Your task to perform on an android device: clear history in the chrome app Image 0: 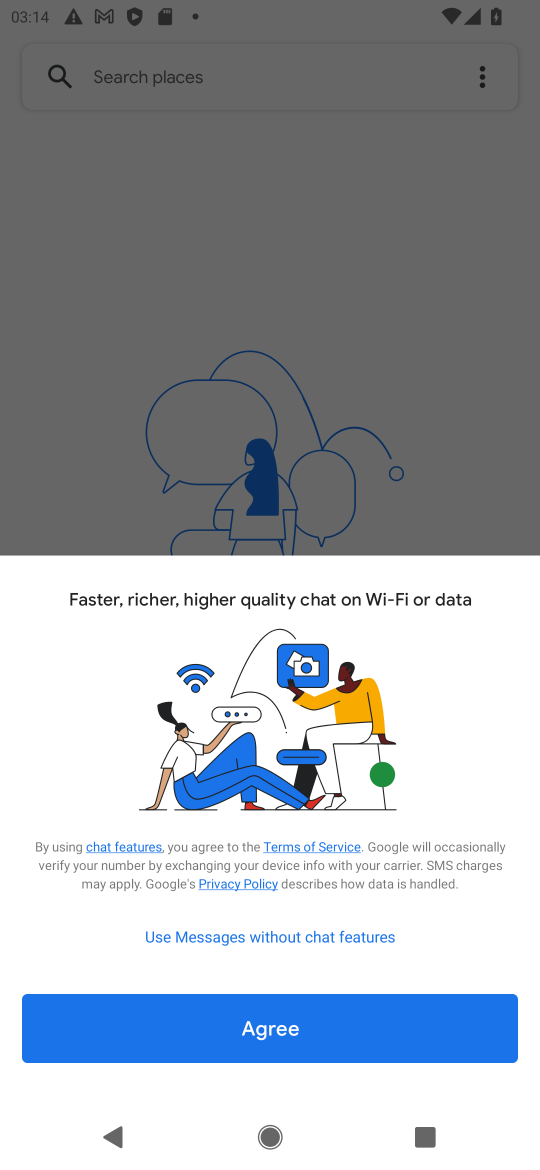
Step 0: press home button
Your task to perform on an android device: clear history in the chrome app Image 1: 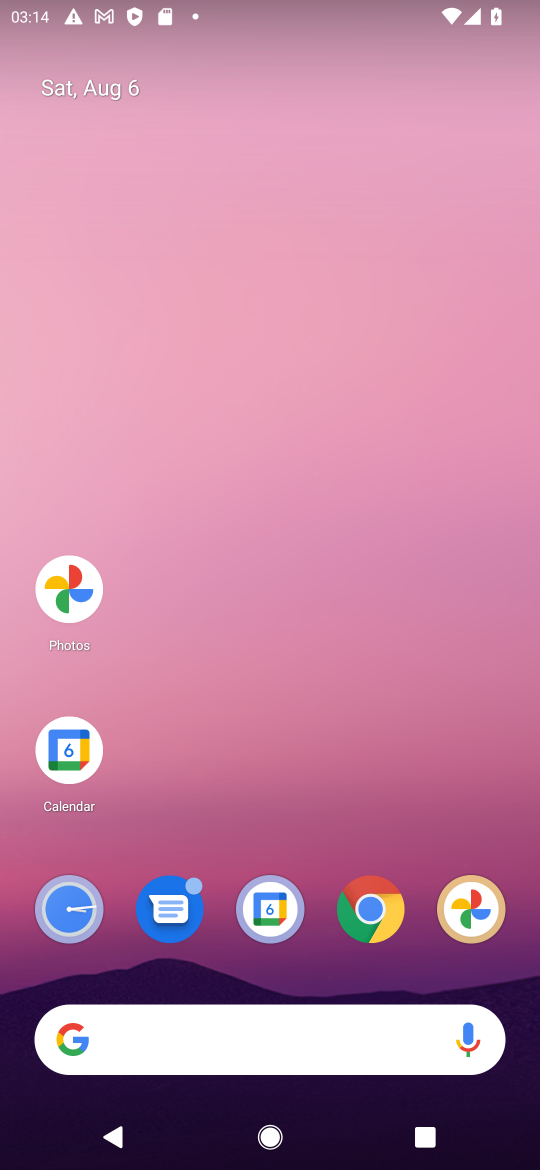
Step 1: click (370, 909)
Your task to perform on an android device: clear history in the chrome app Image 2: 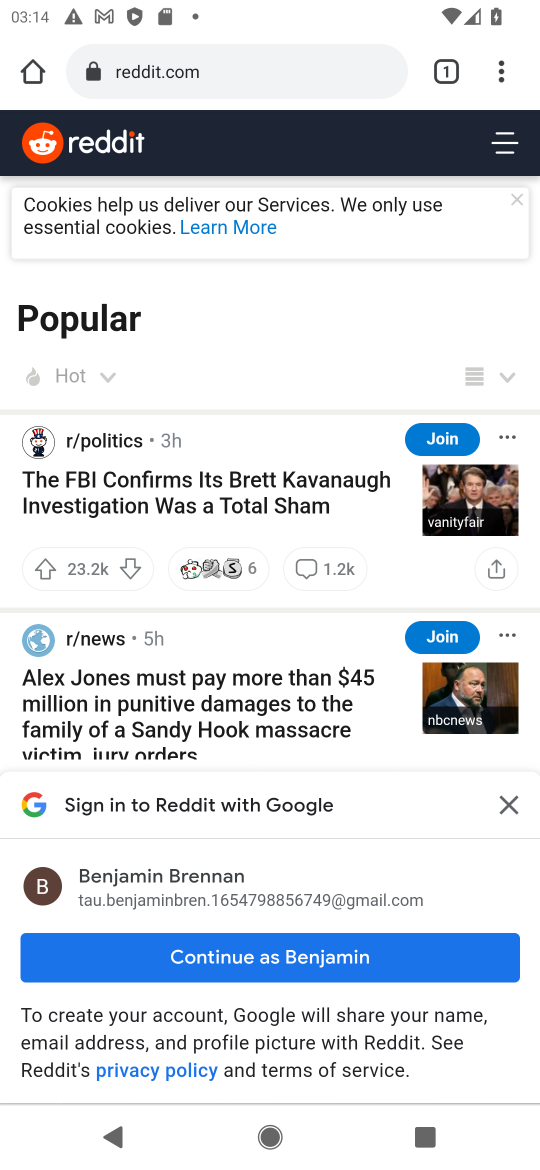
Step 2: click (500, 77)
Your task to perform on an android device: clear history in the chrome app Image 3: 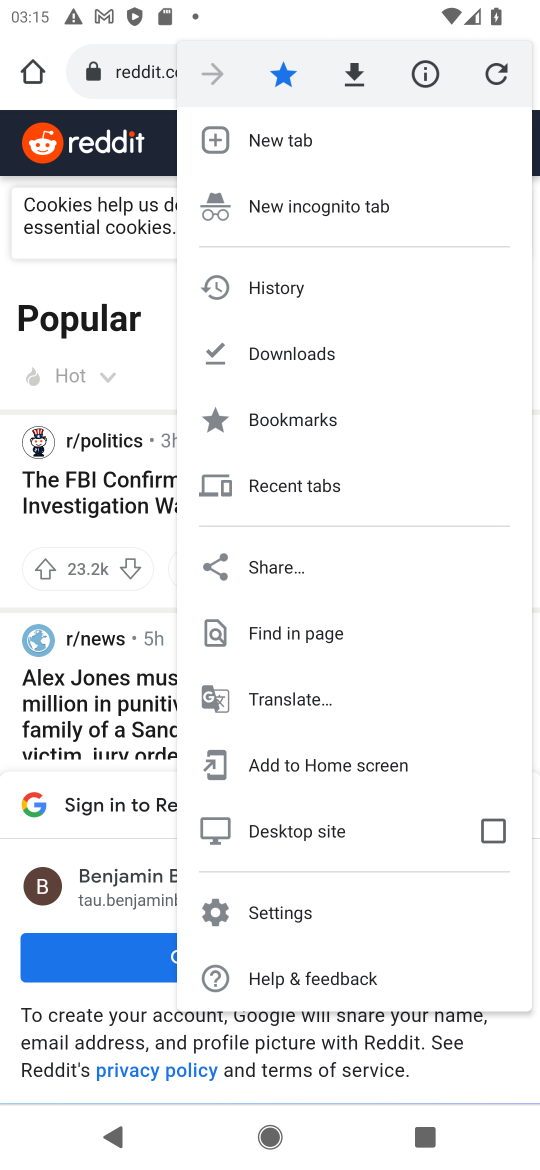
Step 3: click (274, 289)
Your task to perform on an android device: clear history in the chrome app Image 4: 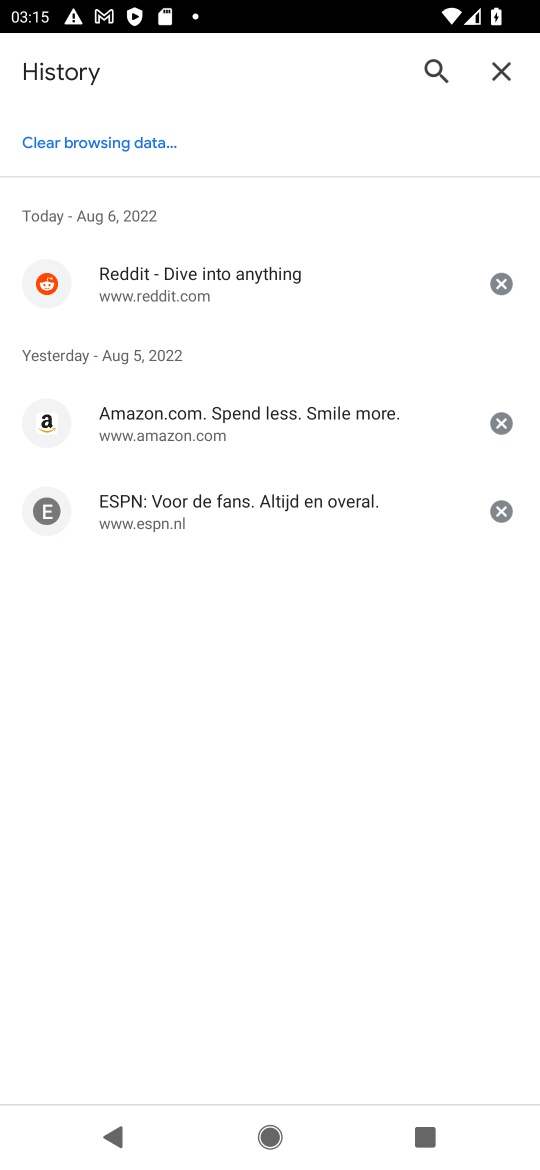
Step 4: click (109, 142)
Your task to perform on an android device: clear history in the chrome app Image 5: 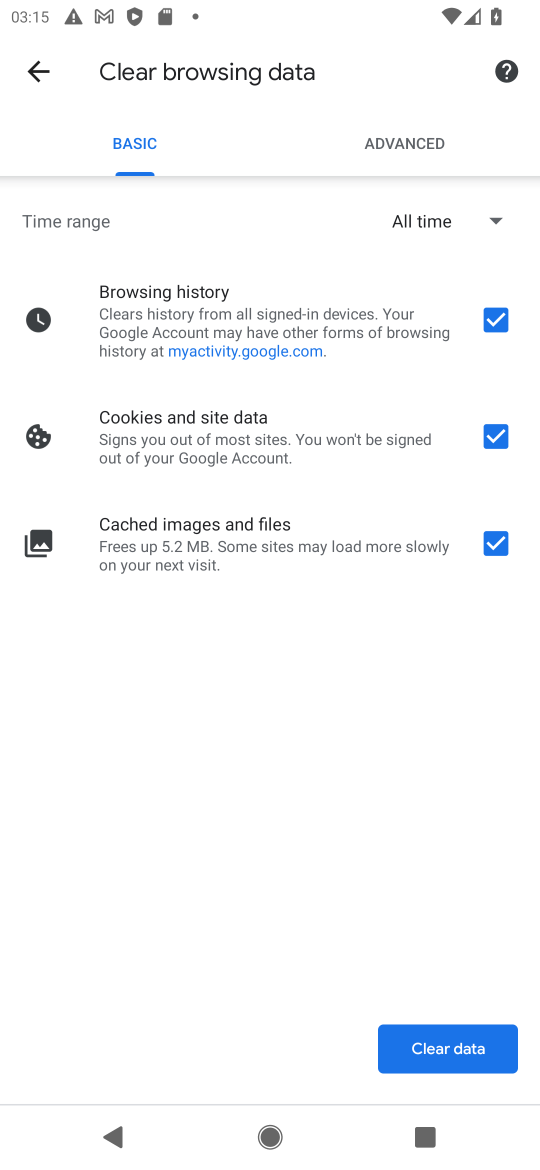
Step 5: click (455, 1048)
Your task to perform on an android device: clear history in the chrome app Image 6: 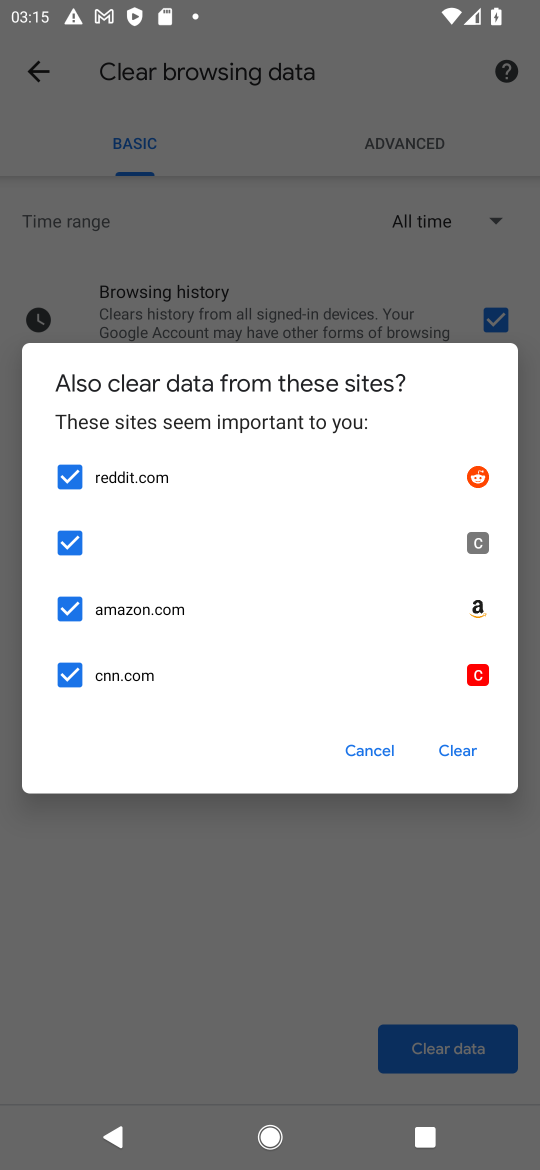
Step 6: click (447, 754)
Your task to perform on an android device: clear history in the chrome app Image 7: 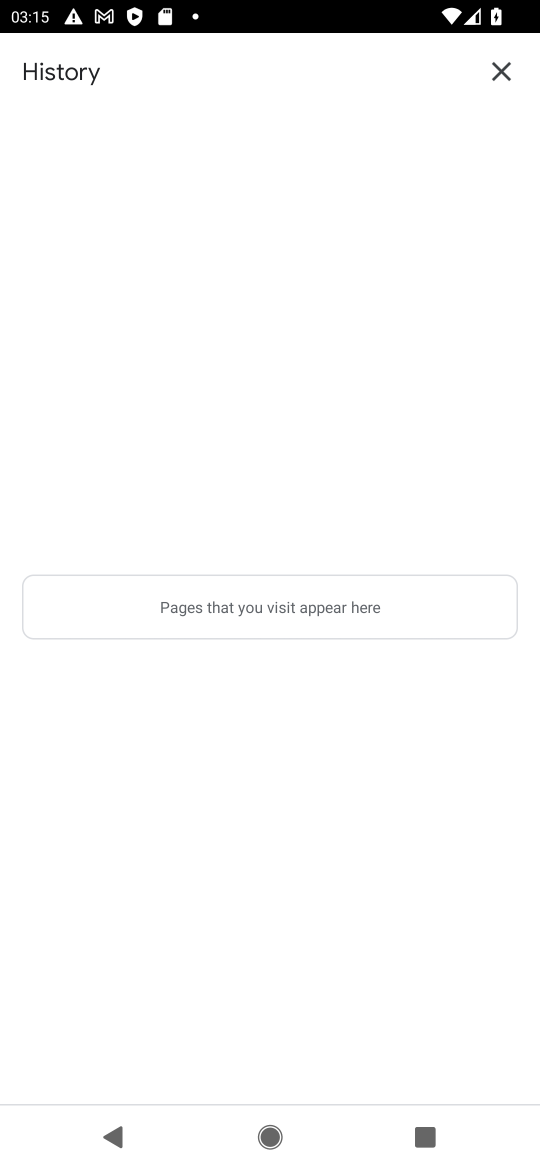
Step 7: task complete